Your task to perform on an android device: Open Google Chrome Image 0: 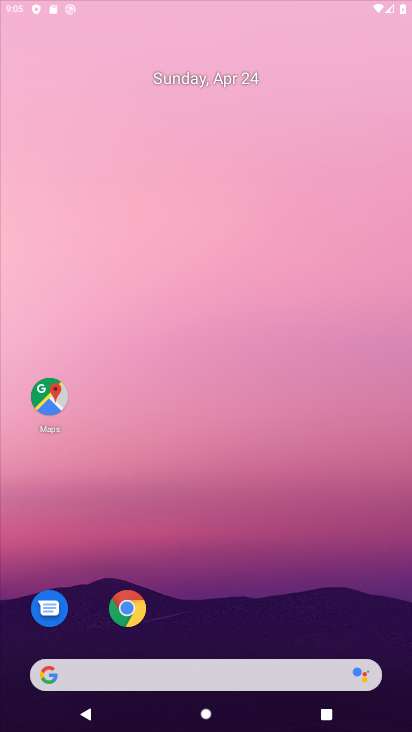
Step 0: press home button
Your task to perform on an android device: Open Google Chrome Image 1: 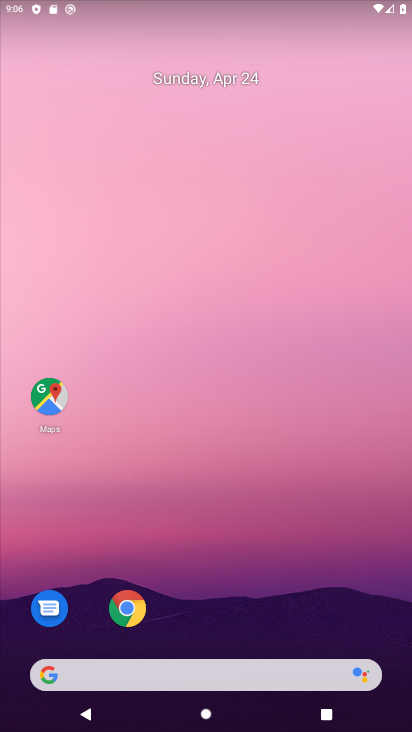
Step 1: drag from (299, 696) to (190, 124)
Your task to perform on an android device: Open Google Chrome Image 2: 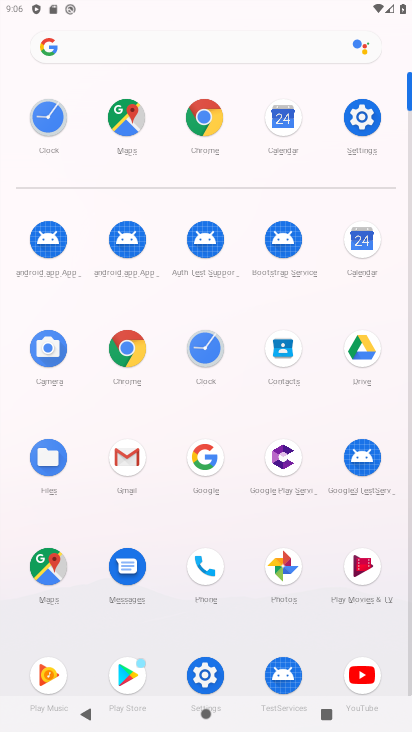
Step 2: click (201, 119)
Your task to perform on an android device: Open Google Chrome Image 3: 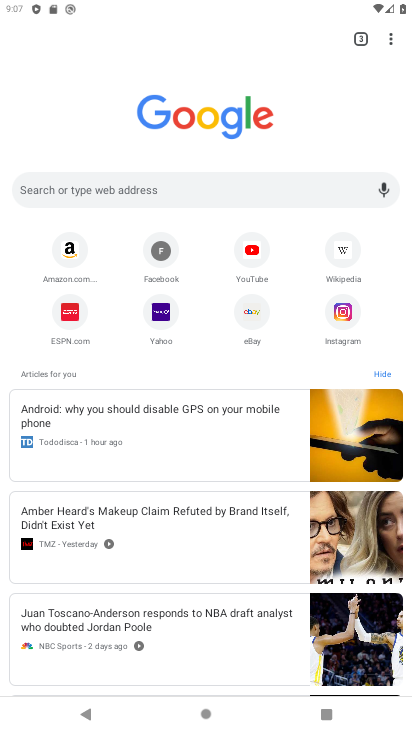
Step 3: task complete